Your task to perform on an android device: Go to sound settings Image 0: 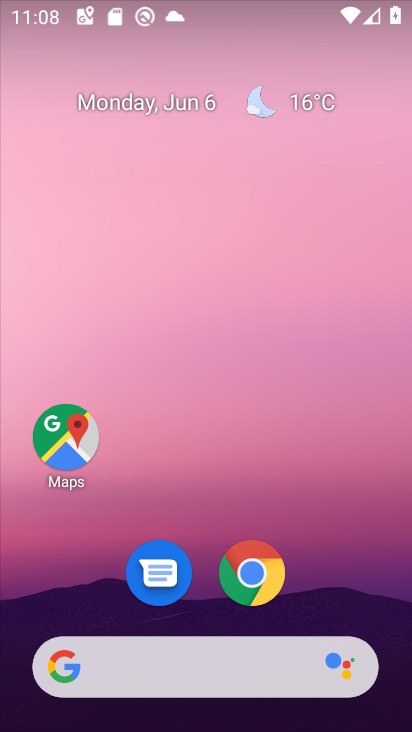
Step 0: drag from (212, 608) to (313, 3)
Your task to perform on an android device: Go to sound settings Image 1: 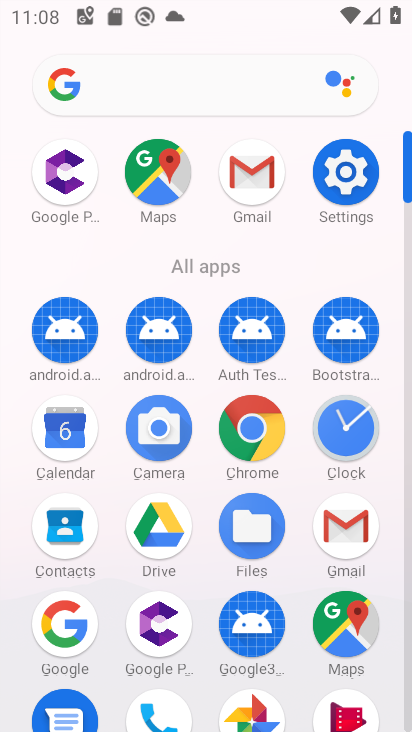
Step 1: click (347, 179)
Your task to perform on an android device: Go to sound settings Image 2: 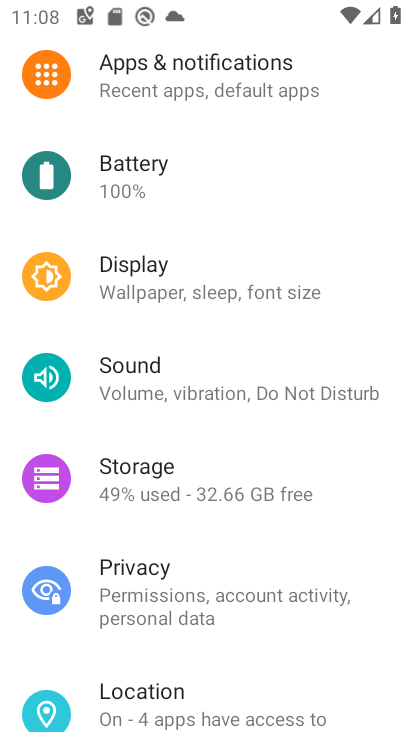
Step 2: click (173, 361)
Your task to perform on an android device: Go to sound settings Image 3: 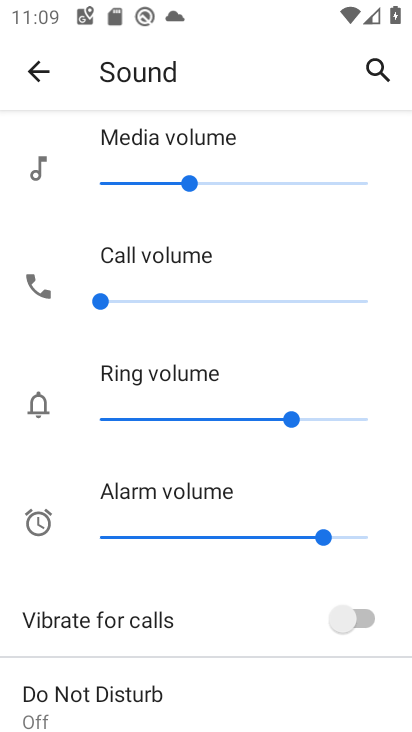
Step 3: task complete